Your task to perform on an android device: toggle notification dots Image 0: 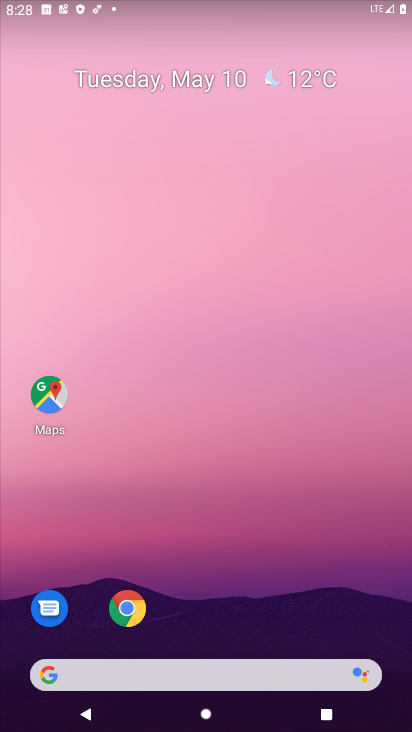
Step 0: drag from (150, 673) to (301, 196)
Your task to perform on an android device: toggle notification dots Image 1: 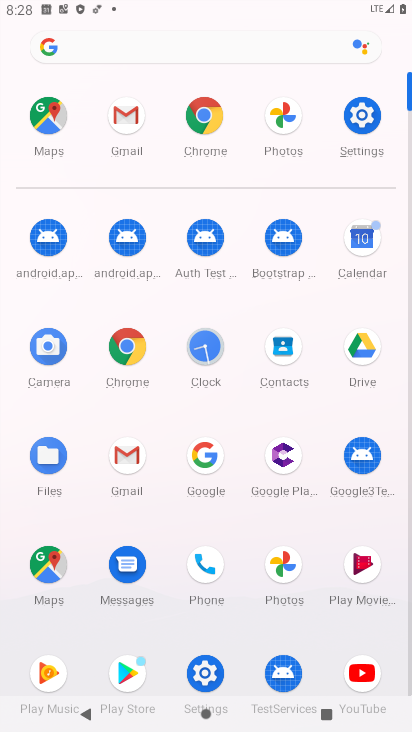
Step 1: click (362, 114)
Your task to perform on an android device: toggle notification dots Image 2: 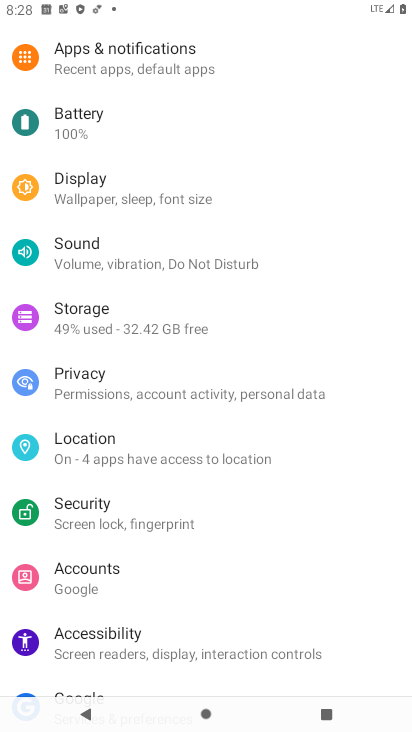
Step 2: click (114, 68)
Your task to perform on an android device: toggle notification dots Image 3: 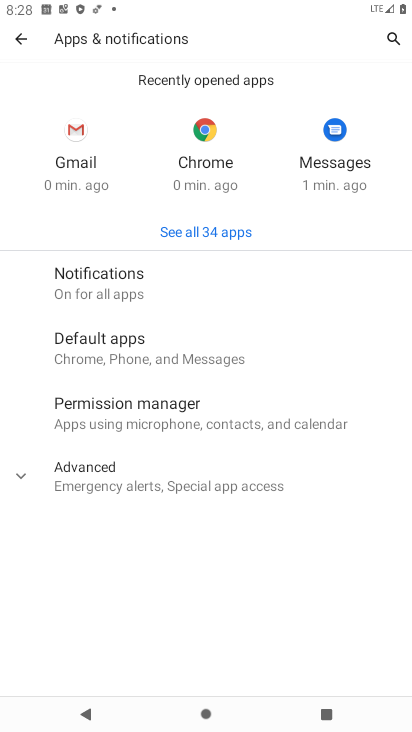
Step 3: click (86, 283)
Your task to perform on an android device: toggle notification dots Image 4: 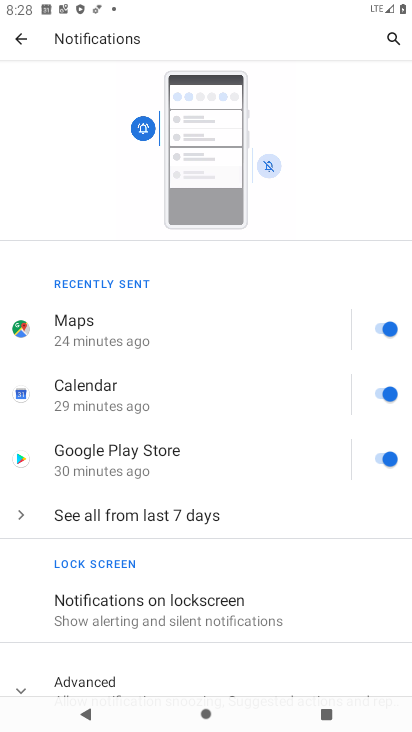
Step 4: drag from (255, 591) to (329, 395)
Your task to perform on an android device: toggle notification dots Image 5: 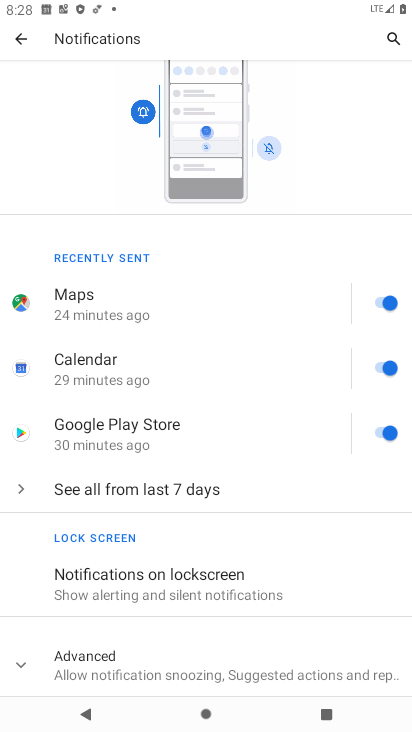
Step 5: click (95, 667)
Your task to perform on an android device: toggle notification dots Image 6: 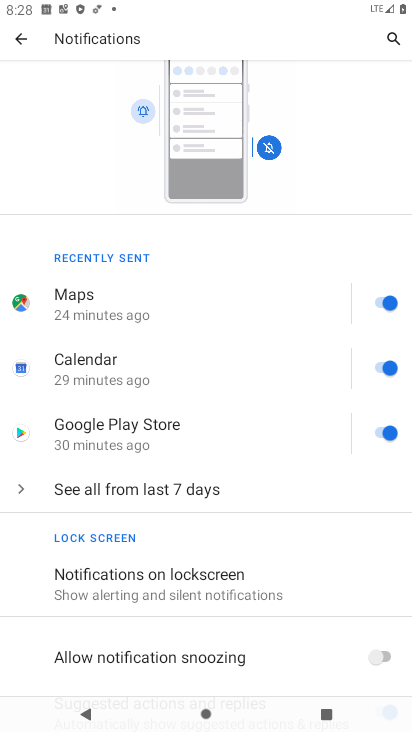
Step 6: drag from (244, 603) to (396, 312)
Your task to perform on an android device: toggle notification dots Image 7: 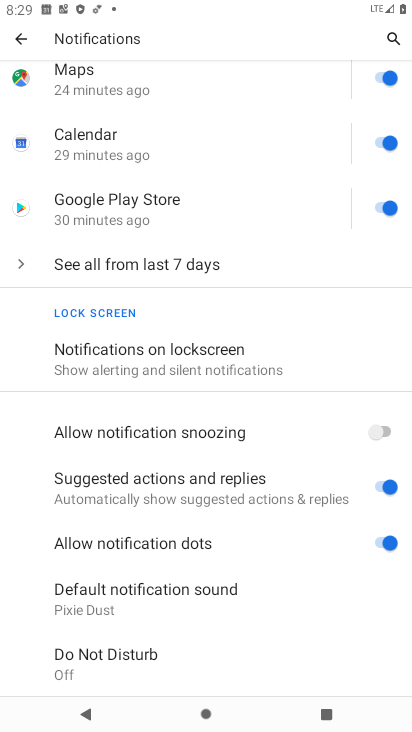
Step 7: click (380, 544)
Your task to perform on an android device: toggle notification dots Image 8: 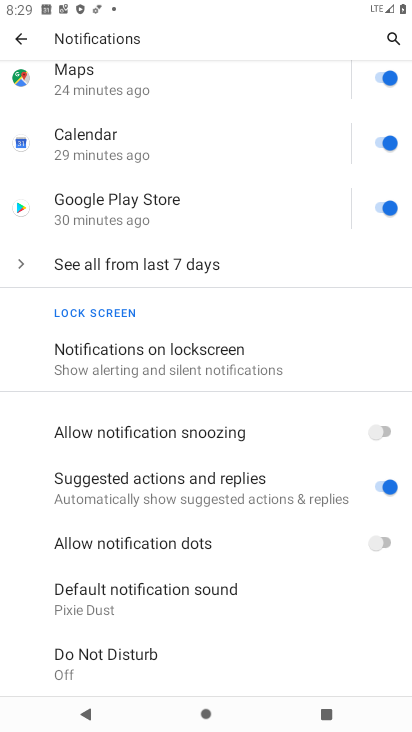
Step 8: task complete